Your task to perform on an android device: Turn on the flashlight Image 0: 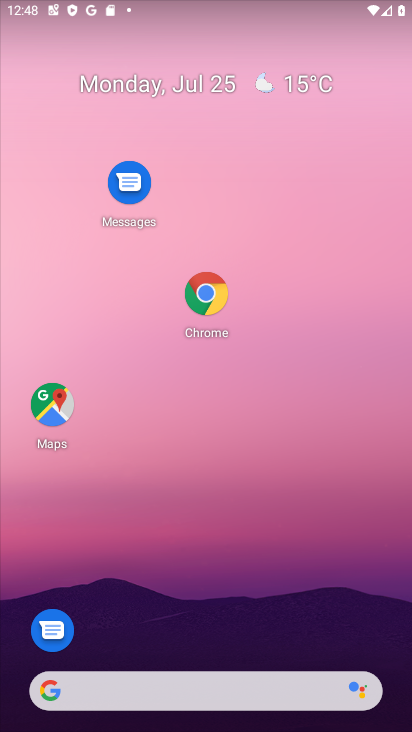
Step 0: drag from (278, 8) to (267, 583)
Your task to perform on an android device: Turn on the flashlight Image 1: 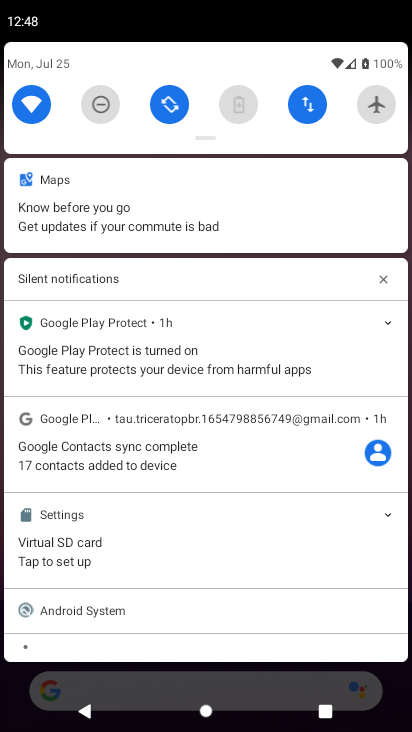
Step 1: task complete